Your task to perform on an android device: see sites visited before in the chrome app Image 0: 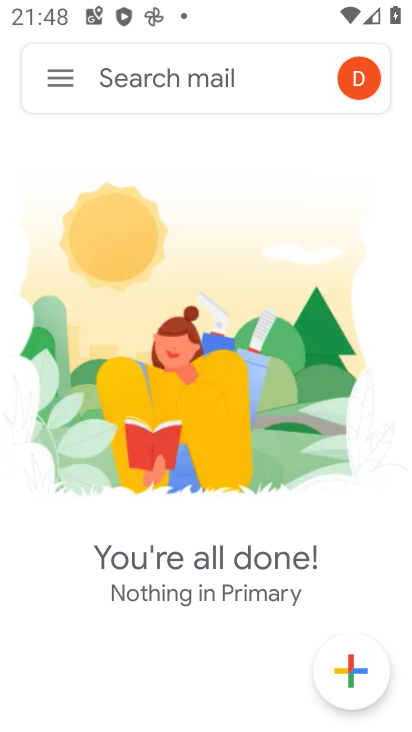
Step 0: press home button
Your task to perform on an android device: see sites visited before in the chrome app Image 1: 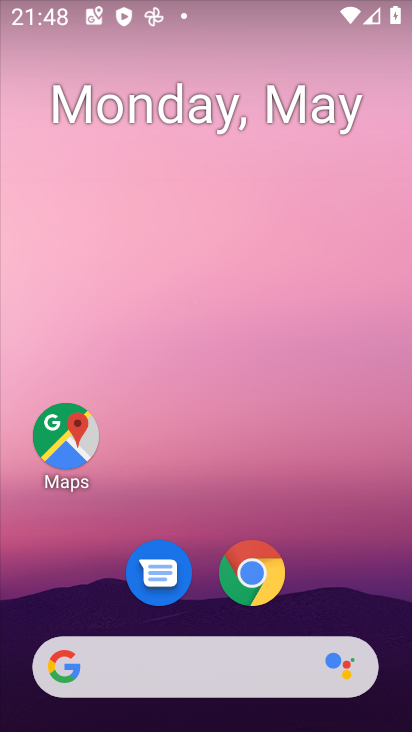
Step 1: click (267, 567)
Your task to perform on an android device: see sites visited before in the chrome app Image 2: 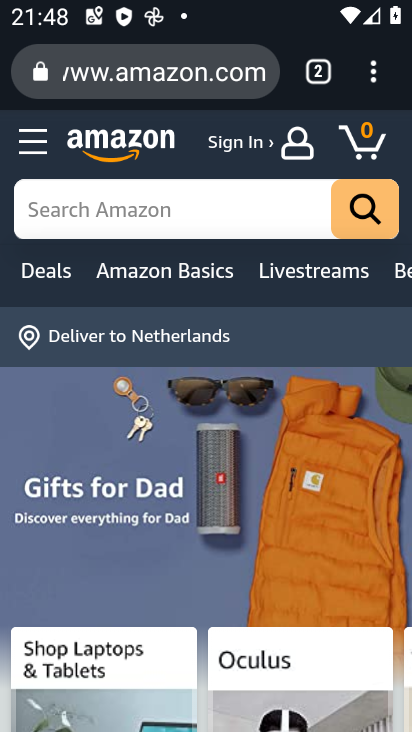
Step 2: click (377, 75)
Your task to perform on an android device: see sites visited before in the chrome app Image 3: 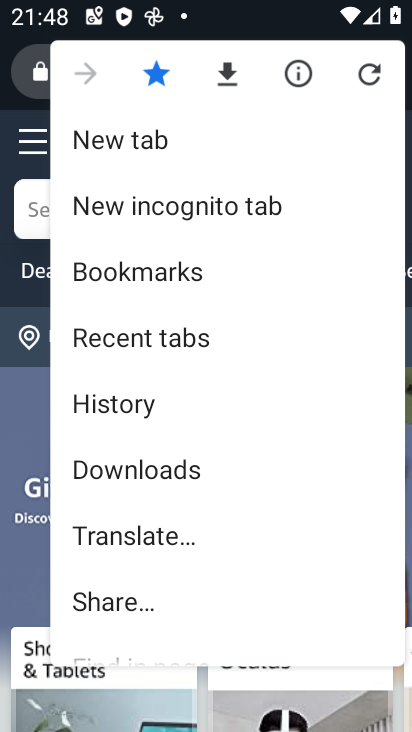
Step 3: drag from (216, 573) to (216, 314)
Your task to perform on an android device: see sites visited before in the chrome app Image 4: 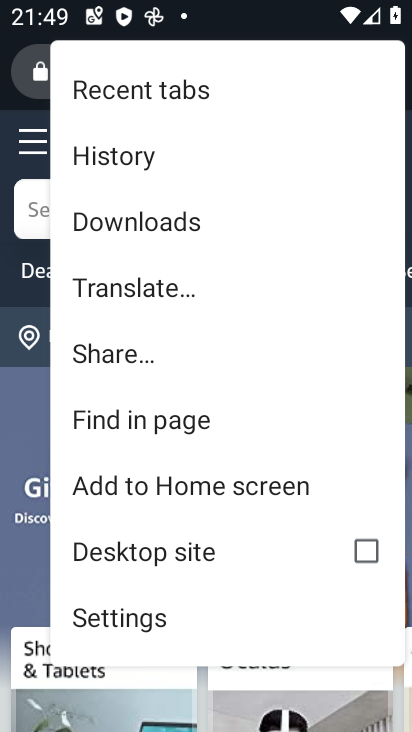
Step 4: click (136, 100)
Your task to perform on an android device: see sites visited before in the chrome app Image 5: 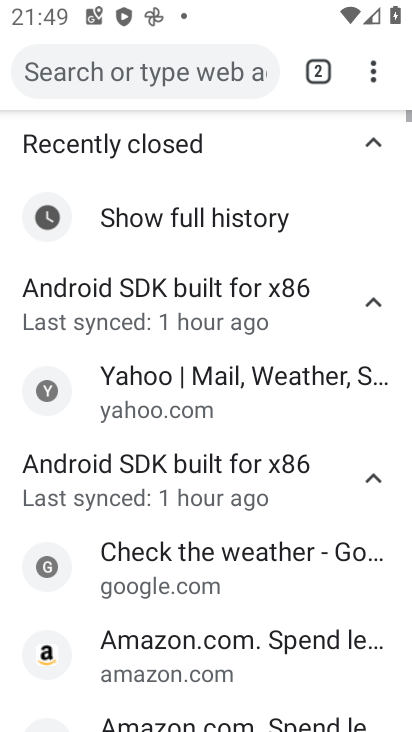
Step 5: task complete